Your task to perform on an android device: Search for pizza restaurants on Maps Image 0: 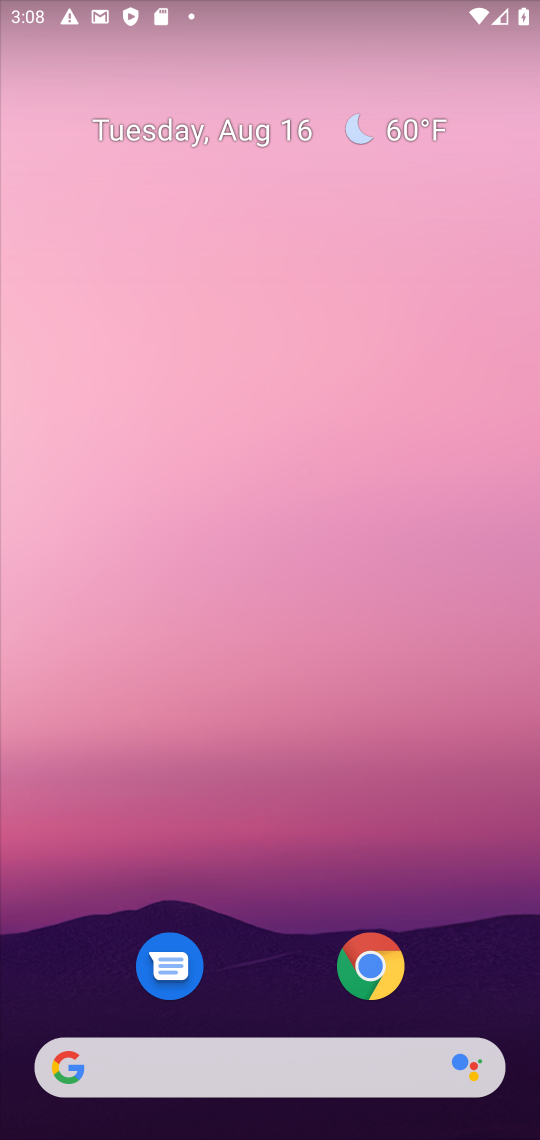
Step 0: drag from (19, 1115) to (403, 402)
Your task to perform on an android device: Search for pizza restaurants on Maps Image 1: 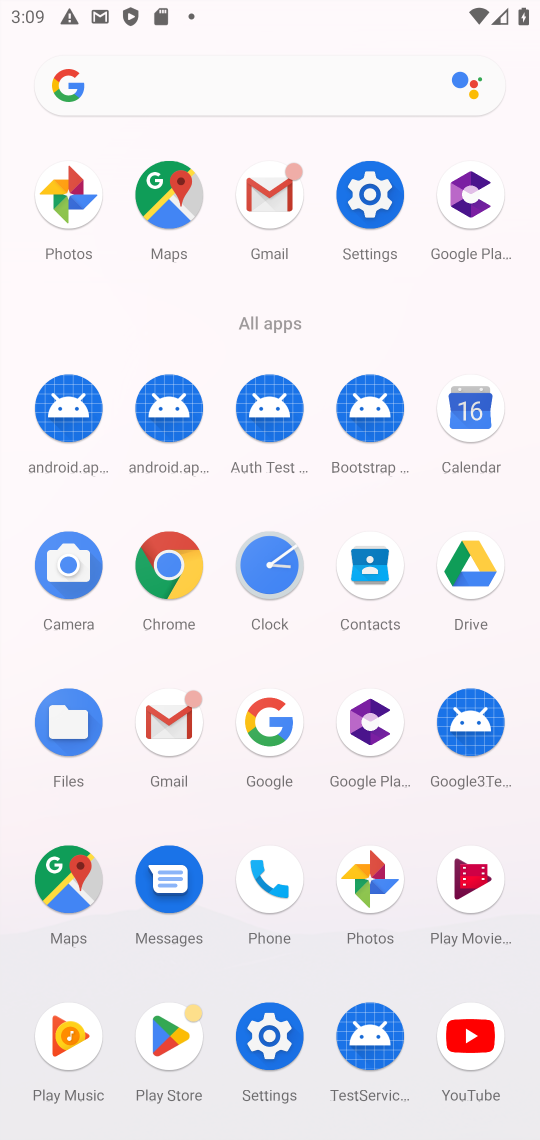
Step 1: click (172, 193)
Your task to perform on an android device: Search for pizza restaurants on Maps Image 2: 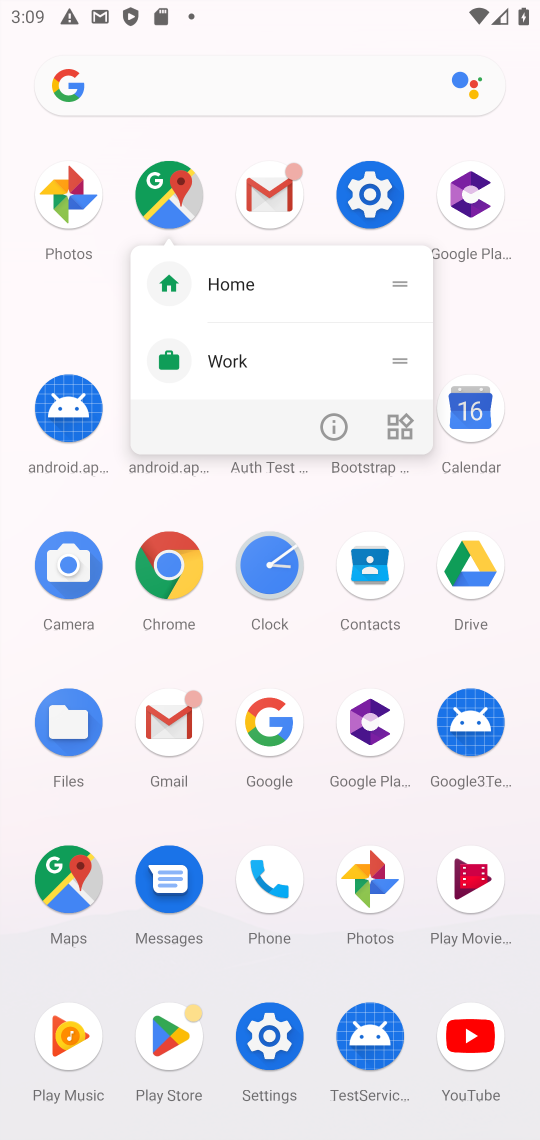
Step 2: click (175, 204)
Your task to perform on an android device: Search for pizza restaurants on Maps Image 3: 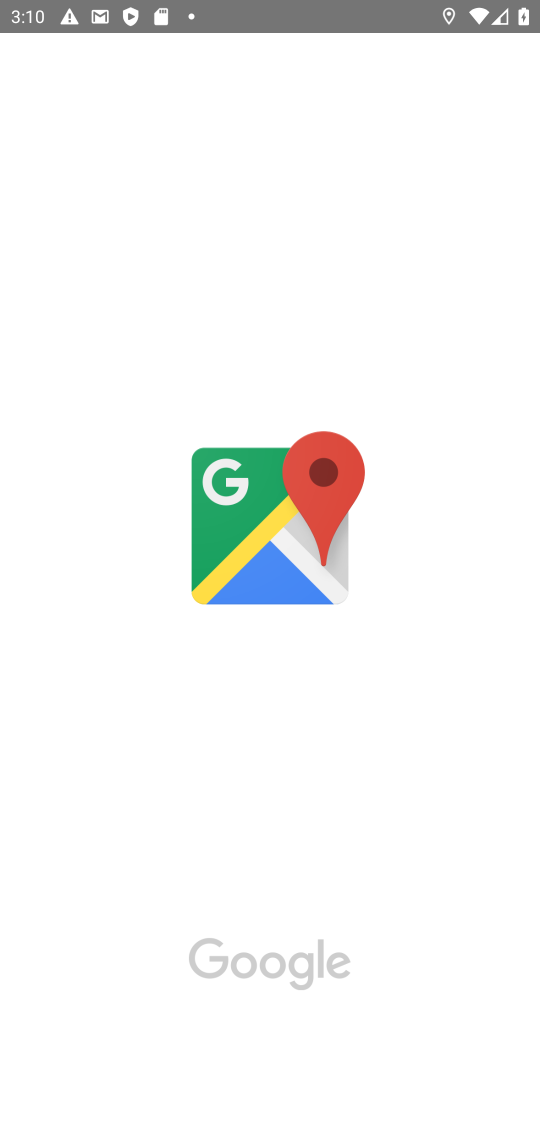
Step 3: click (199, 415)
Your task to perform on an android device: Search for pizza restaurants on Maps Image 4: 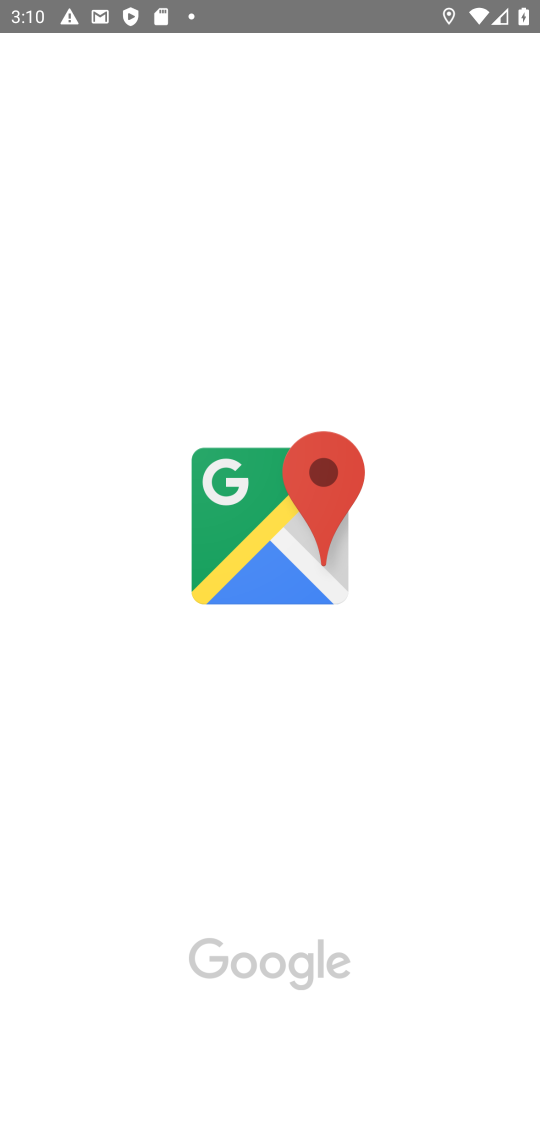
Step 4: task complete